Your task to perform on an android device: Turn on the flashlight Image 0: 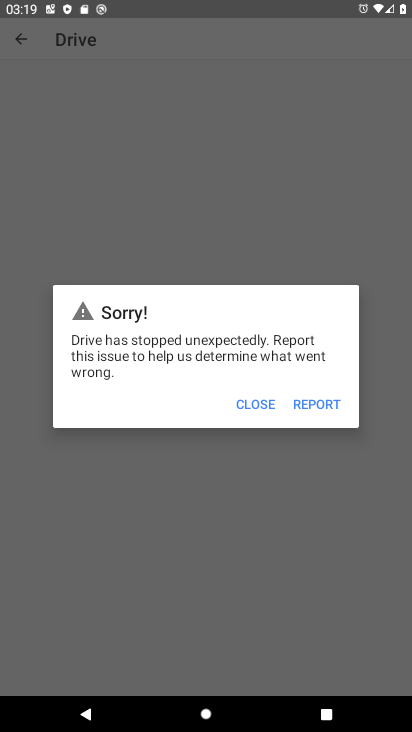
Step 0: drag from (324, 10) to (153, 465)
Your task to perform on an android device: Turn on the flashlight Image 1: 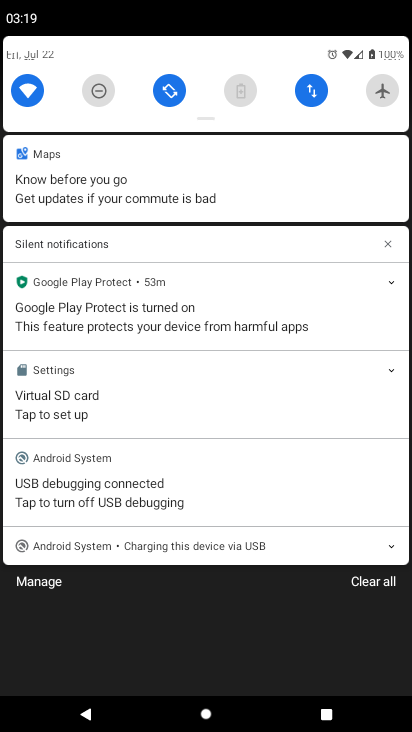
Step 1: drag from (195, 111) to (243, 492)
Your task to perform on an android device: Turn on the flashlight Image 2: 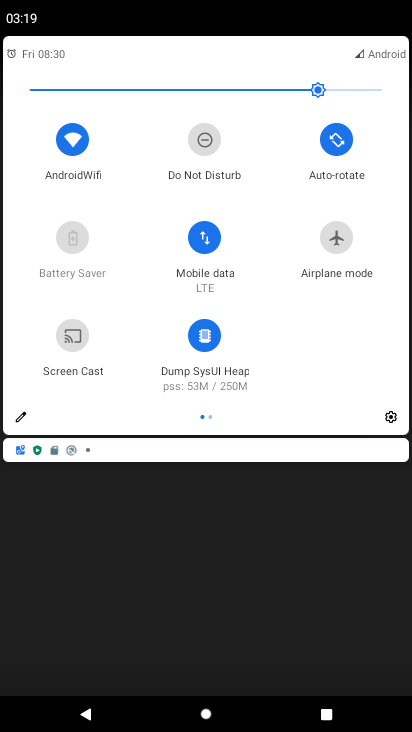
Step 2: click (21, 424)
Your task to perform on an android device: Turn on the flashlight Image 3: 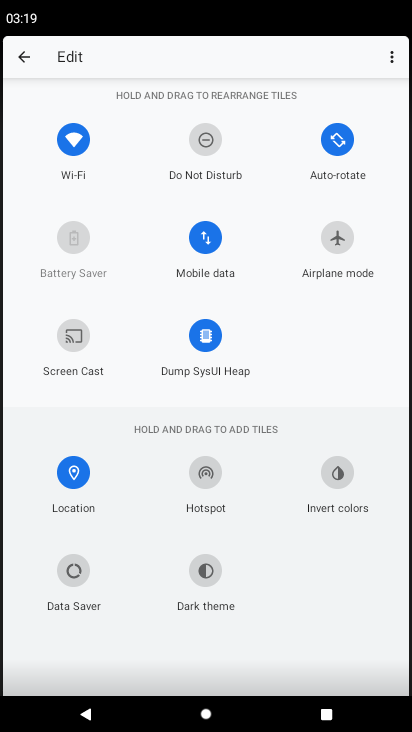
Step 3: task complete